Your task to perform on an android device: add a contact Image 0: 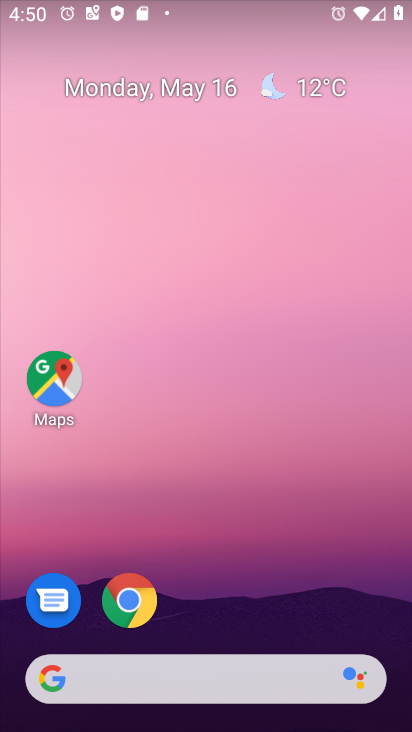
Step 0: drag from (196, 651) to (210, 386)
Your task to perform on an android device: add a contact Image 1: 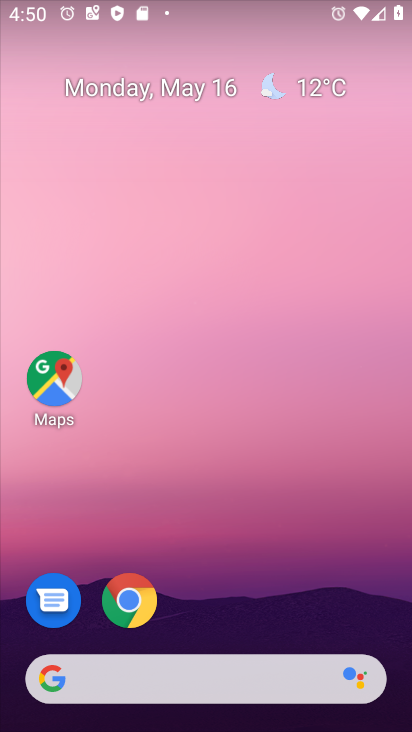
Step 1: drag from (250, 541) to (249, 234)
Your task to perform on an android device: add a contact Image 2: 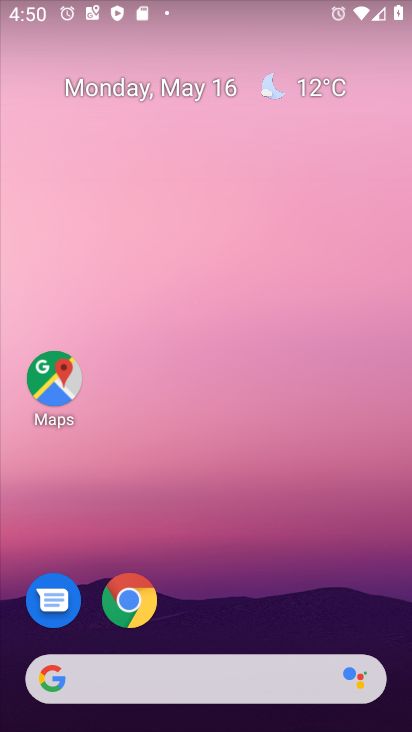
Step 2: drag from (212, 659) to (178, 212)
Your task to perform on an android device: add a contact Image 3: 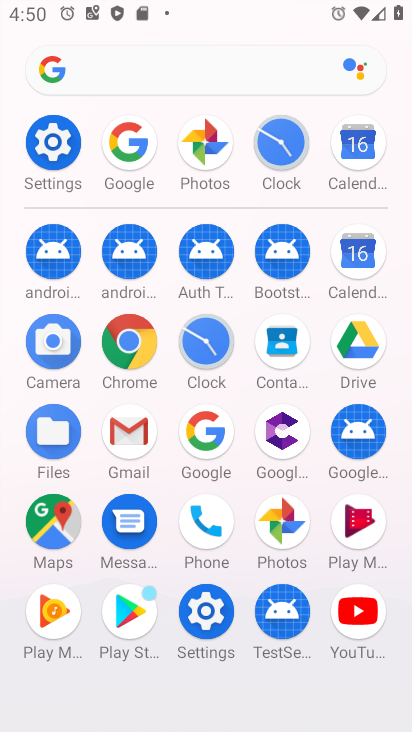
Step 3: click (272, 346)
Your task to perform on an android device: add a contact Image 4: 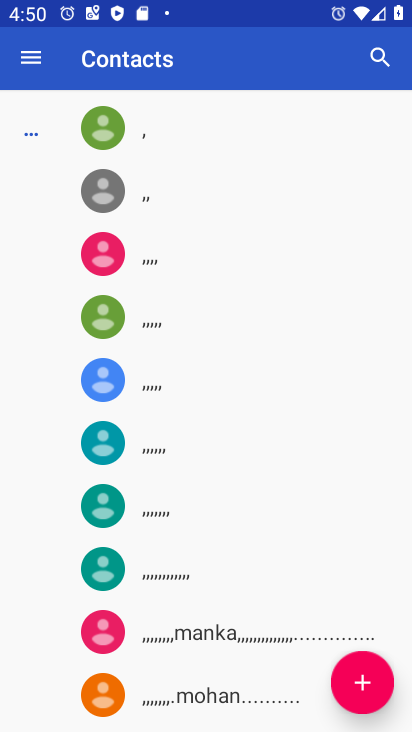
Step 4: click (370, 685)
Your task to perform on an android device: add a contact Image 5: 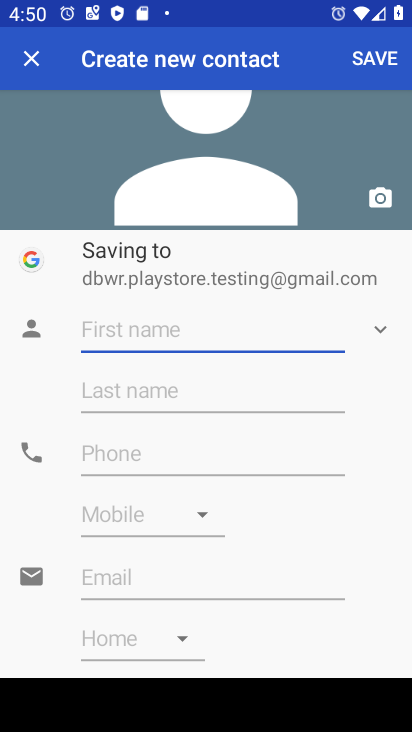
Step 5: click (123, 341)
Your task to perform on an android device: add a contact Image 6: 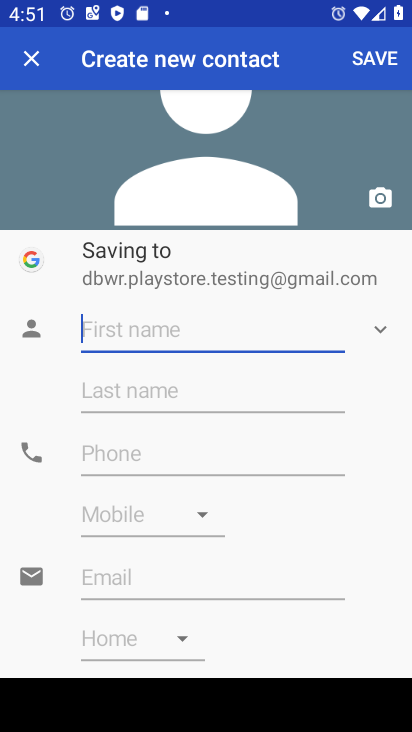
Step 6: type "pall"
Your task to perform on an android device: add a contact Image 7: 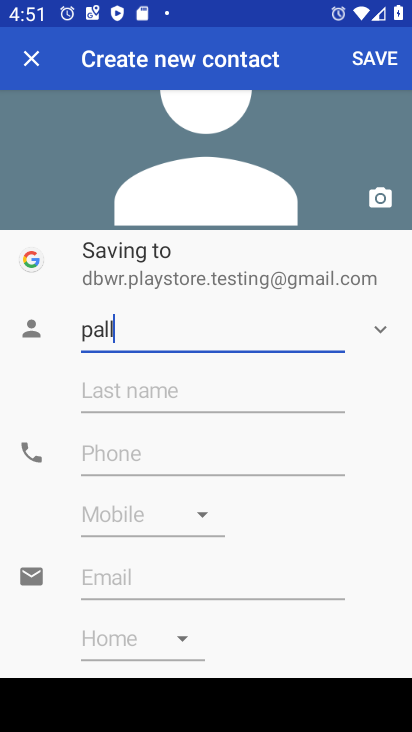
Step 7: click (111, 396)
Your task to perform on an android device: add a contact Image 8: 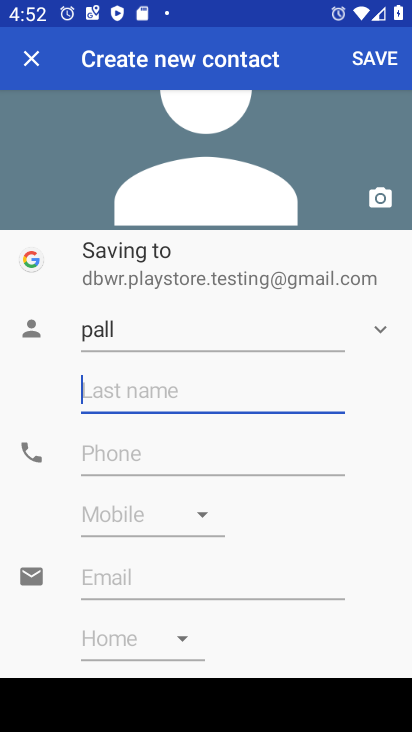
Step 8: click (122, 454)
Your task to perform on an android device: add a contact Image 9: 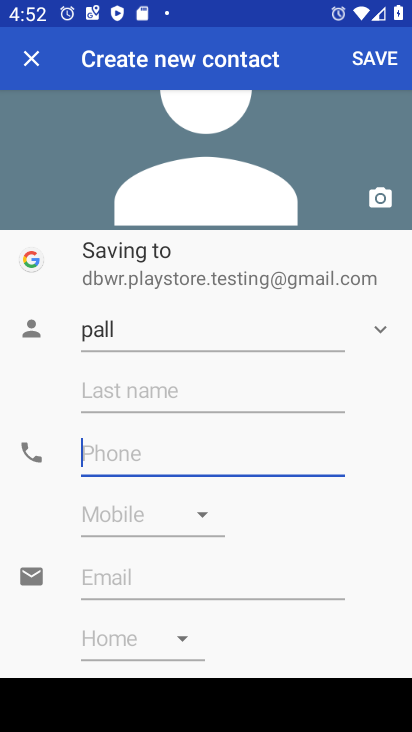
Step 9: type "7678787878"
Your task to perform on an android device: add a contact Image 10: 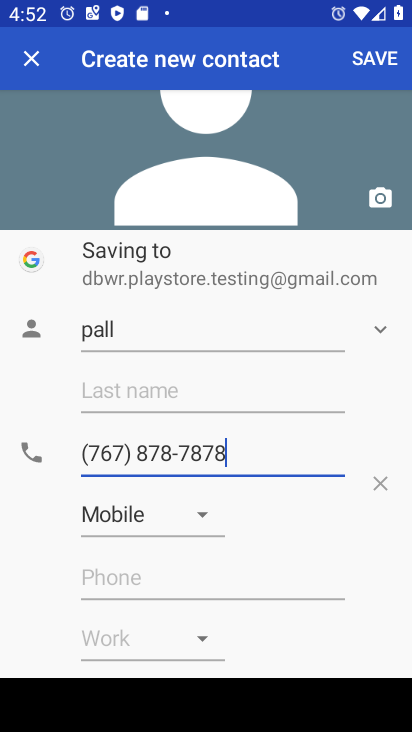
Step 10: task complete